Your task to perform on an android device: Do I have any events today? Image 0: 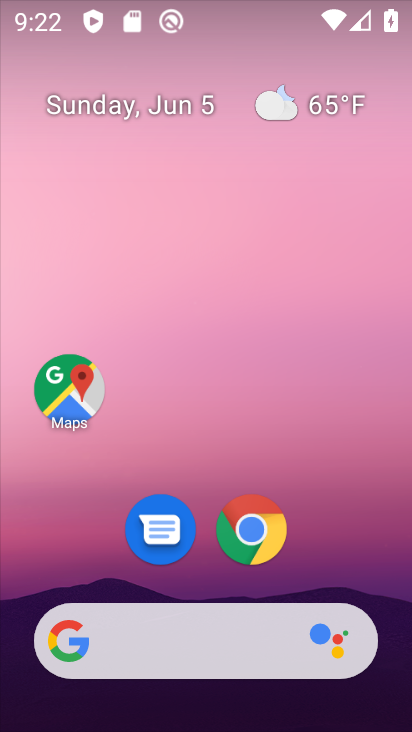
Step 0: drag from (234, 670) to (254, 2)
Your task to perform on an android device: Do I have any events today? Image 1: 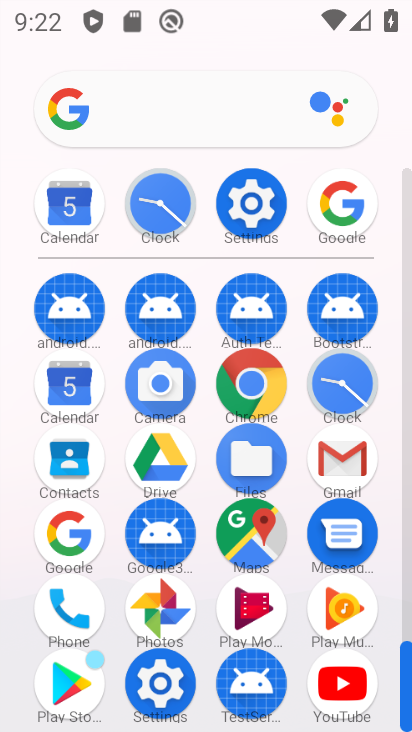
Step 1: click (71, 204)
Your task to perform on an android device: Do I have any events today? Image 2: 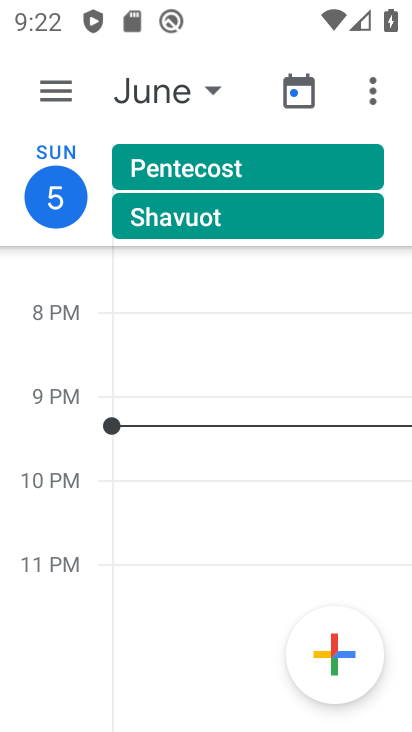
Step 2: task complete